Your task to perform on an android device: Open Youtube and go to the subscriptions tab Image 0: 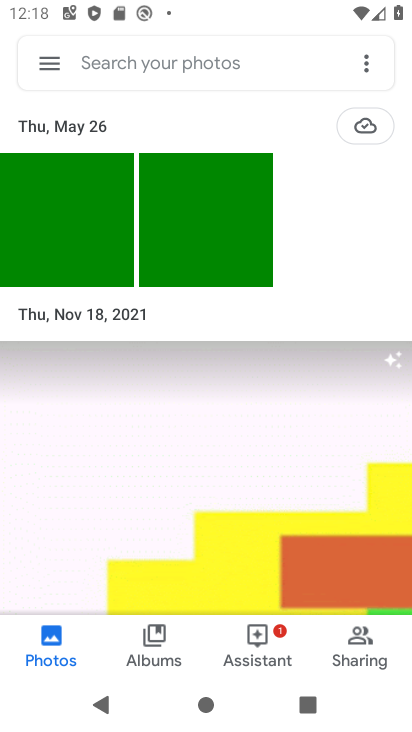
Step 0: press home button
Your task to perform on an android device: Open Youtube and go to the subscriptions tab Image 1: 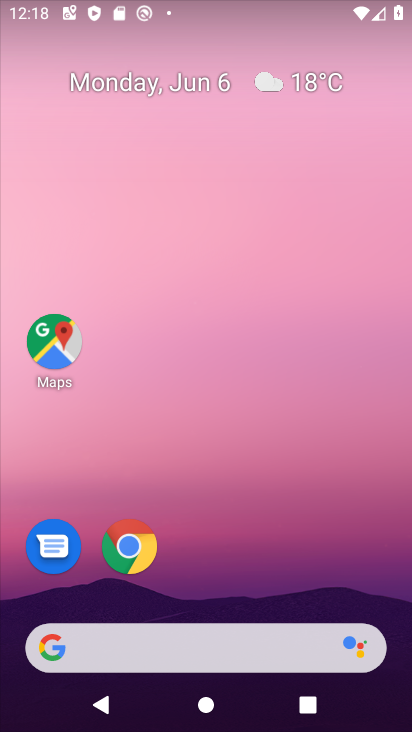
Step 1: drag from (264, 527) to (240, 109)
Your task to perform on an android device: Open Youtube and go to the subscriptions tab Image 2: 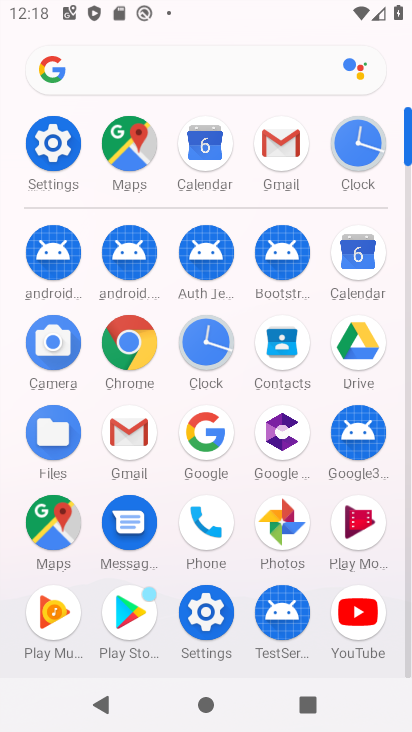
Step 2: click (362, 602)
Your task to perform on an android device: Open Youtube and go to the subscriptions tab Image 3: 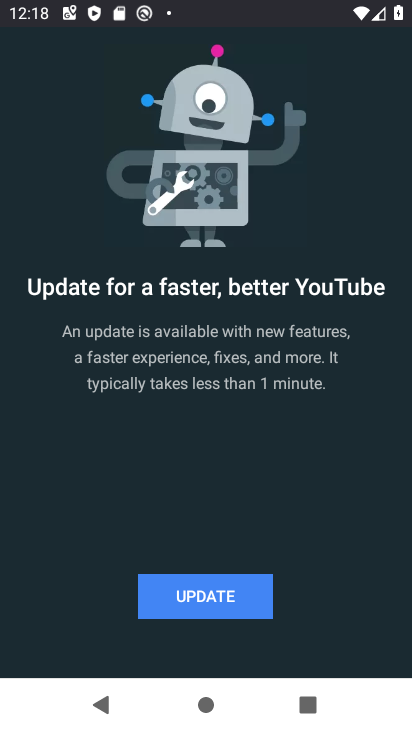
Step 3: click (229, 608)
Your task to perform on an android device: Open Youtube and go to the subscriptions tab Image 4: 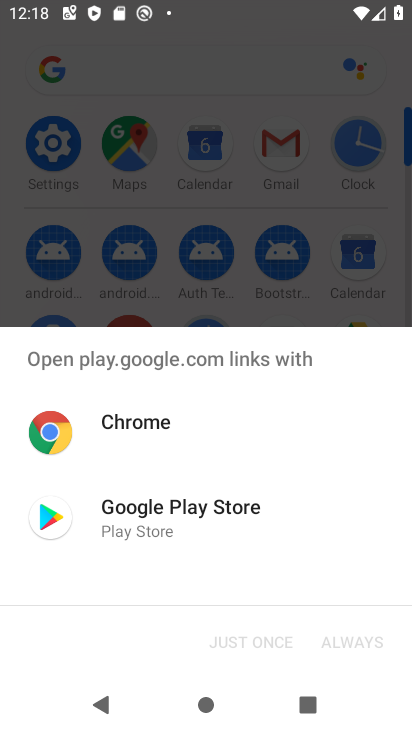
Step 4: click (168, 517)
Your task to perform on an android device: Open Youtube and go to the subscriptions tab Image 5: 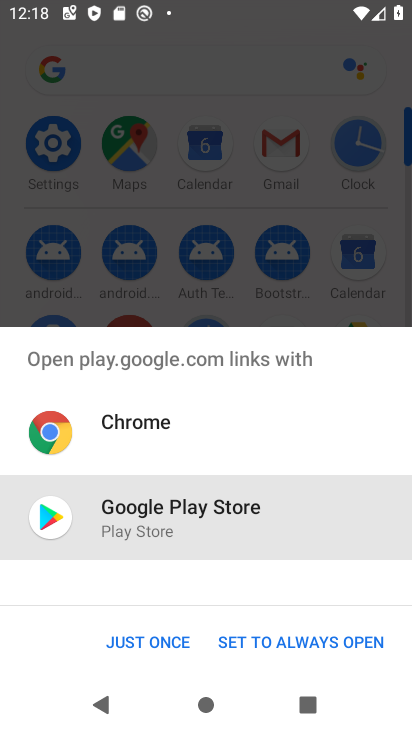
Step 5: click (141, 646)
Your task to perform on an android device: Open Youtube and go to the subscriptions tab Image 6: 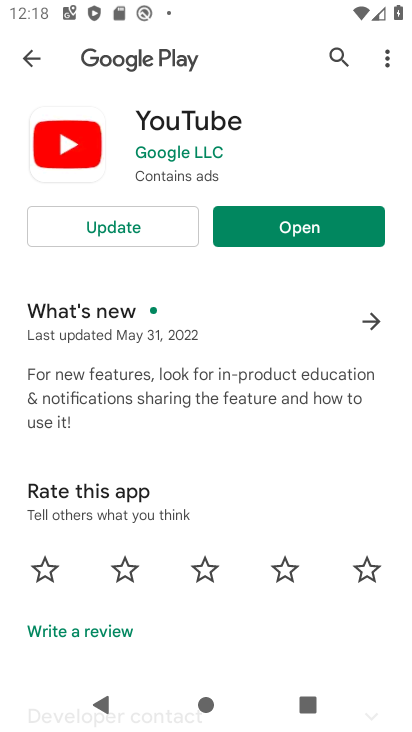
Step 6: click (145, 220)
Your task to perform on an android device: Open Youtube and go to the subscriptions tab Image 7: 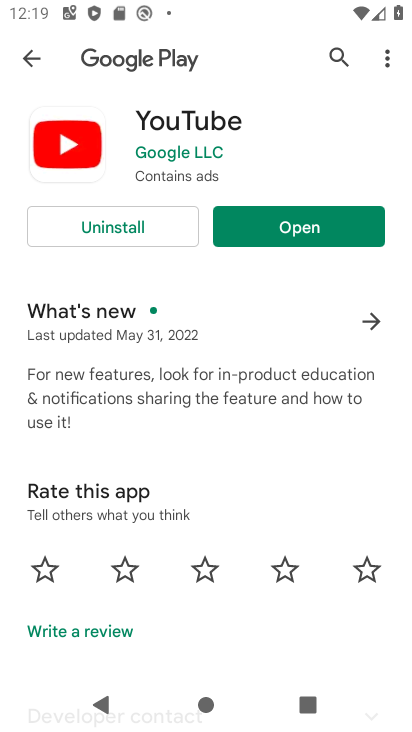
Step 7: click (284, 226)
Your task to perform on an android device: Open Youtube and go to the subscriptions tab Image 8: 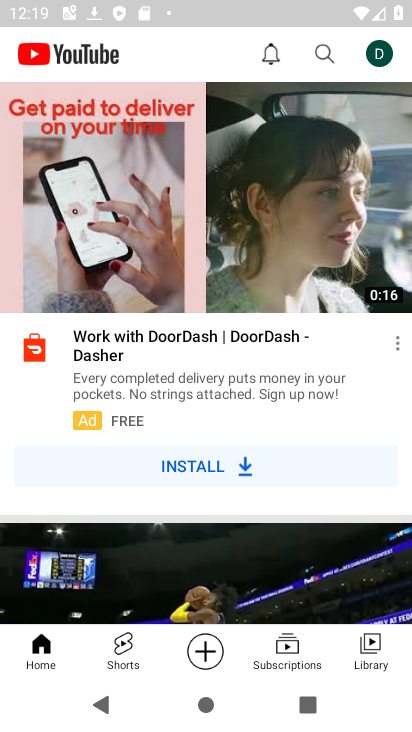
Step 8: click (286, 644)
Your task to perform on an android device: Open Youtube and go to the subscriptions tab Image 9: 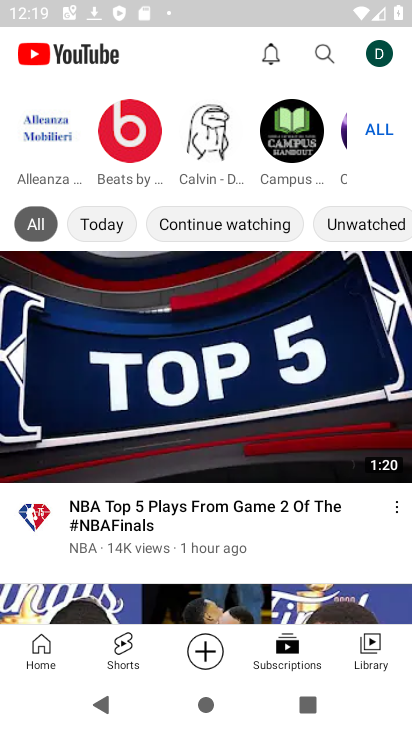
Step 9: task complete